Your task to perform on an android device: turn on bluetooth scan Image 0: 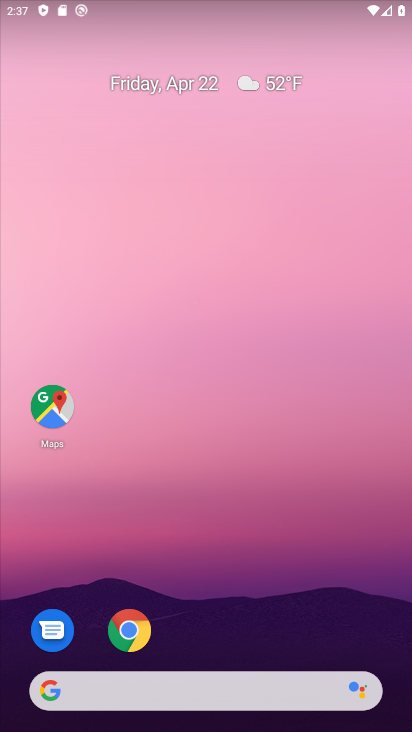
Step 0: drag from (364, 637) to (201, 119)
Your task to perform on an android device: turn on bluetooth scan Image 1: 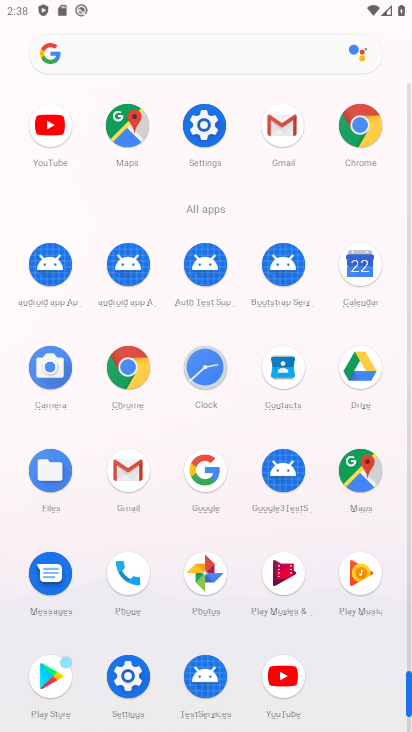
Step 1: click (120, 676)
Your task to perform on an android device: turn on bluetooth scan Image 2: 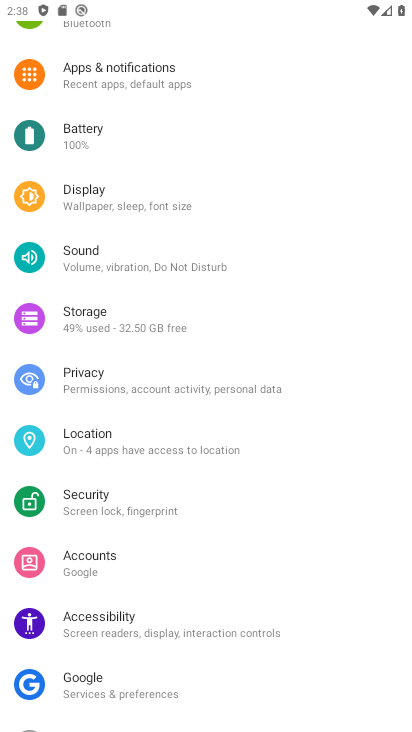
Step 2: click (85, 437)
Your task to perform on an android device: turn on bluetooth scan Image 3: 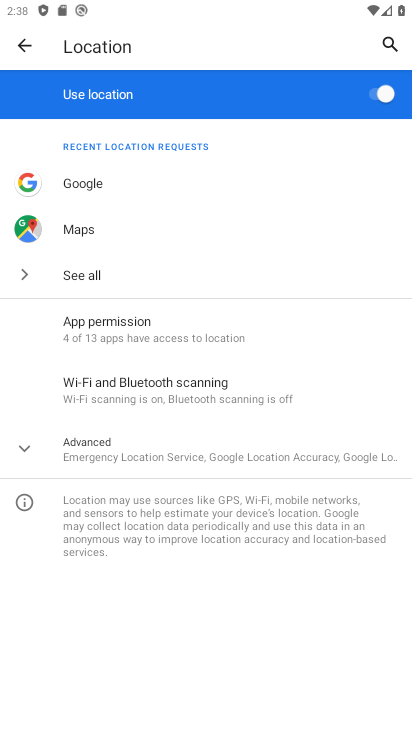
Step 3: click (131, 380)
Your task to perform on an android device: turn on bluetooth scan Image 4: 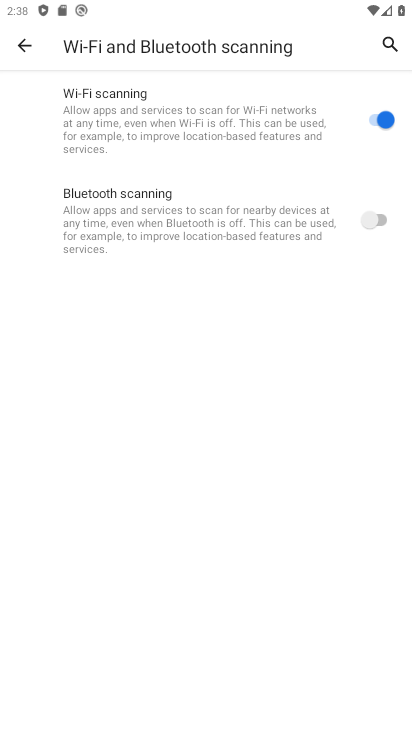
Step 4: click (374, 218)
Your task to perform on an android device: turn on bluetooth scan Image 5: 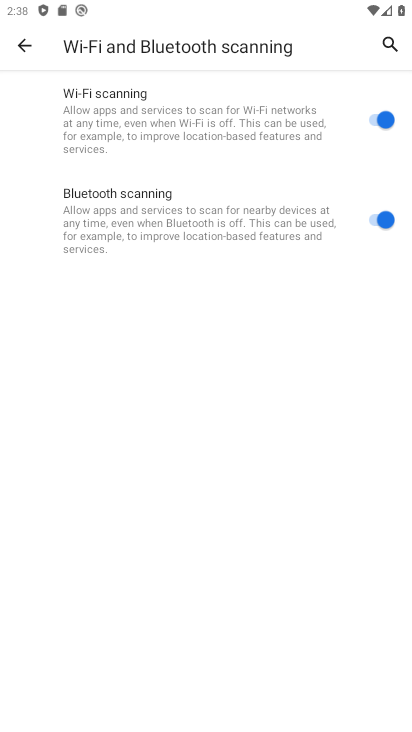
Step 5: task complete